Your task to perform on an android device: visit the assistant section in the google photos Image 0: 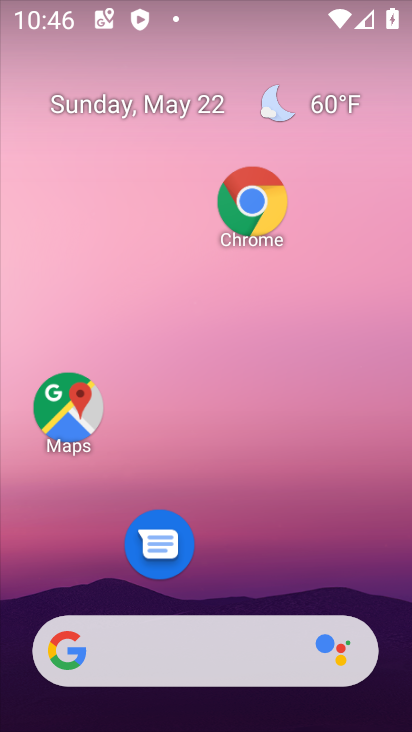
Step 0: drag from (277, 551) to (295, 91)
Your task to perform on an android device: visit the assistant section in the google photos Image 1: 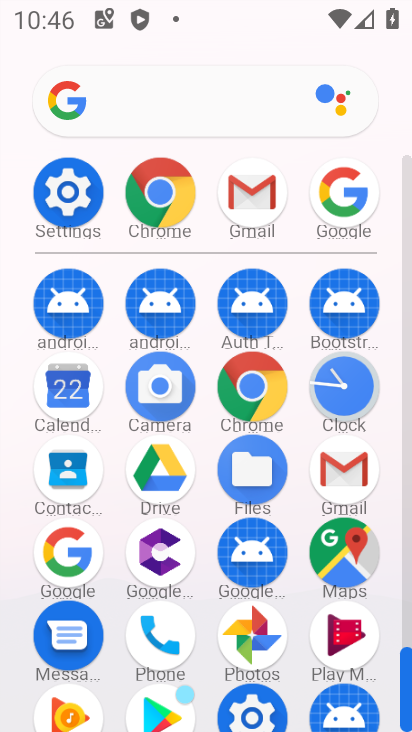
Step 1: click (250, 637)
Your task to perform on an android device: visit the assistant section in the google photos Image 2: 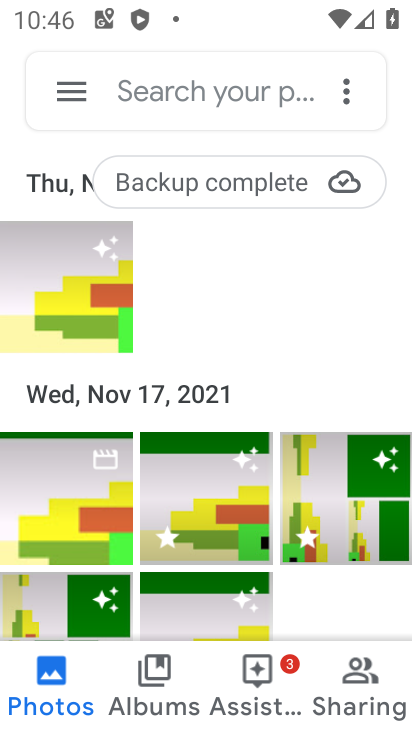
Step 2: click (251, 700)
Your task to perform on an android device: visit the assistant section in the google photos Image 3: 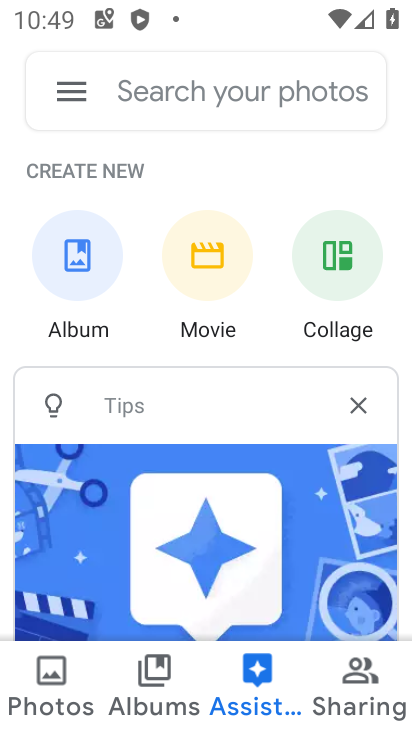
Step 3: task complete